Your task to perform on an android device: Go to location settings Image 0: 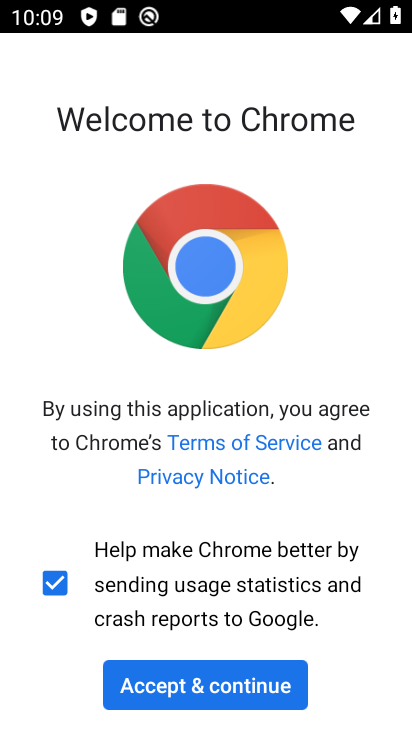
Step 0: press home button
Your task to perform on an android device: Go to location settings Image 1: 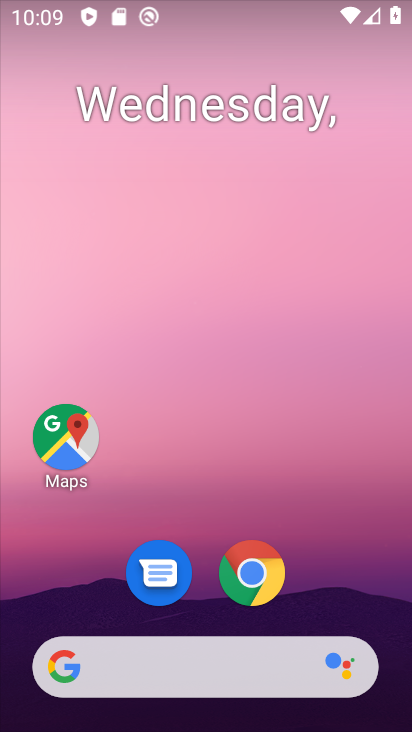
Step 1: drag from (208, 612) to (288, 250)
Your task to perform on an android device: Go to location settings Image 2: 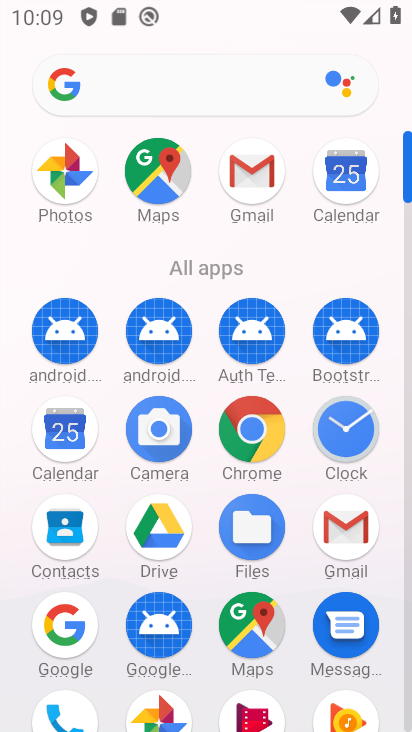
Step 2: drag from (312, 447) to (342, 199)
Your task to perform on an android device: Go to location settings Image 3: 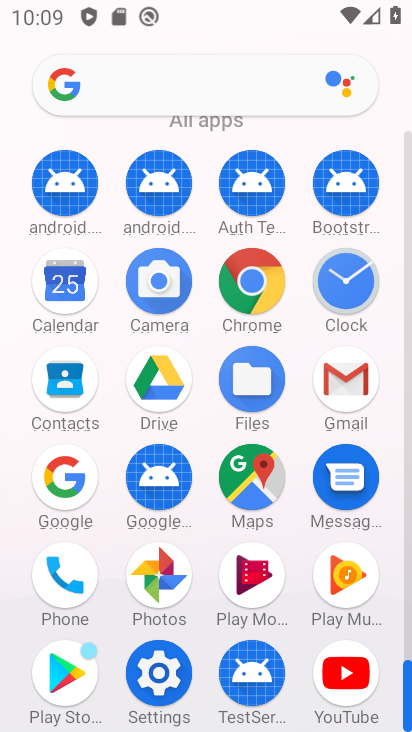
Step 3: click (156, 679)
Your task to perform on an android device: Go to location settings Image 4: 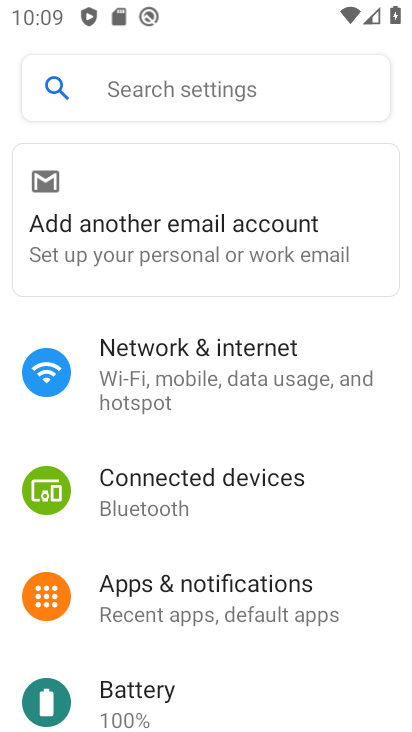
Step 4: drag from (180, 642) to (265, 259)
Your task to perform on an android device: Go to location settings Image 5: 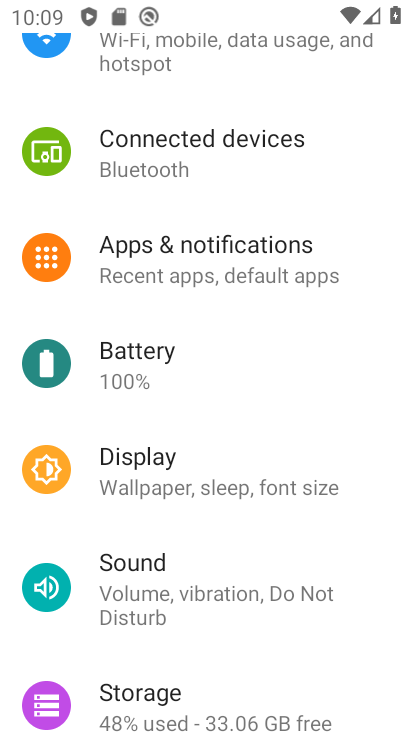
Step 5: drag from (191, 625) to (269, 204)
Your task to perform on an android device: Go to location settings Image 6: 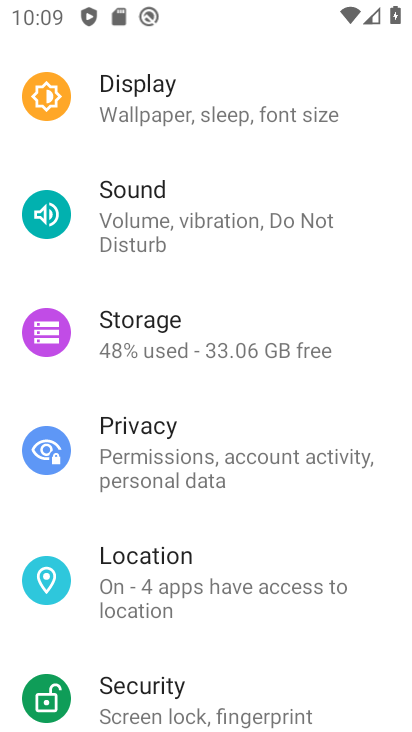
Step 6: click (190, 581)
Your task to perform on an android device: Go to location settings Image 7: 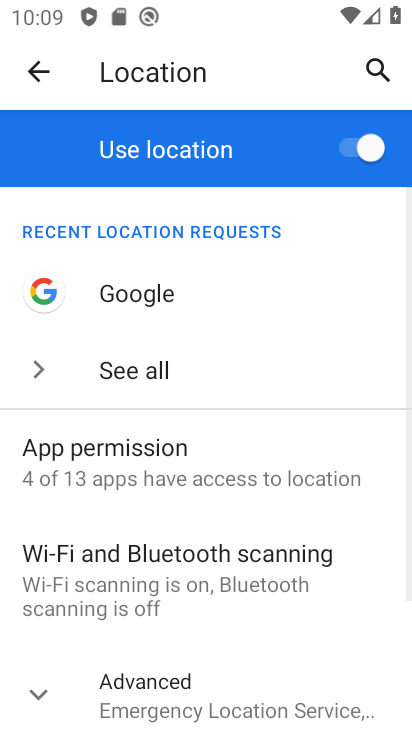
Step 7: task complete